Your task to perform on an android device: Open calendar and show me the second week of next month Image 0: 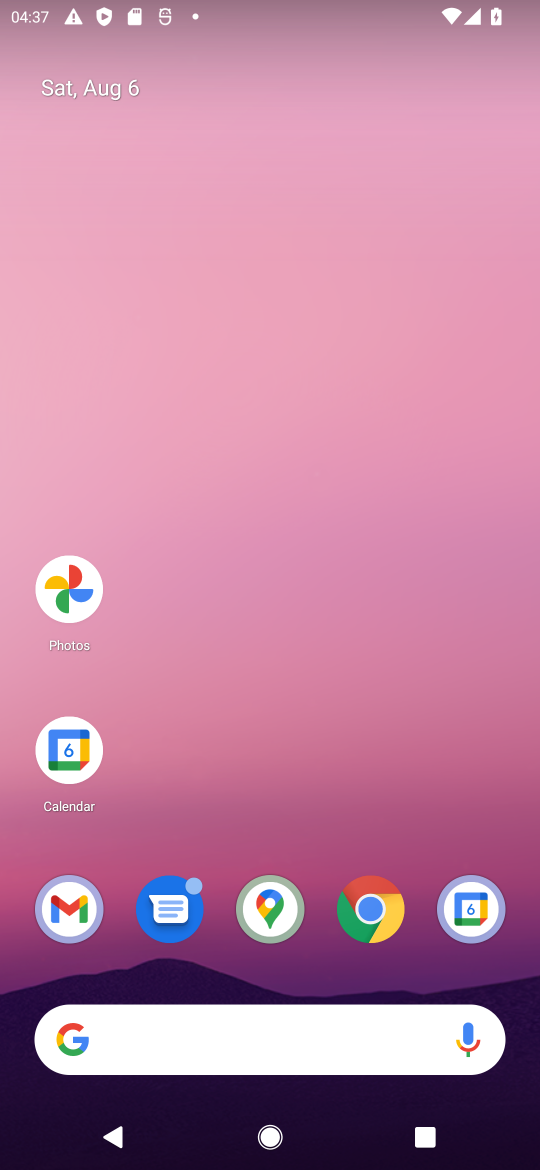
Step 0: click (58, 743)
Your task to perform on an android device: Open calendar and show me the second week of next month Image 1: 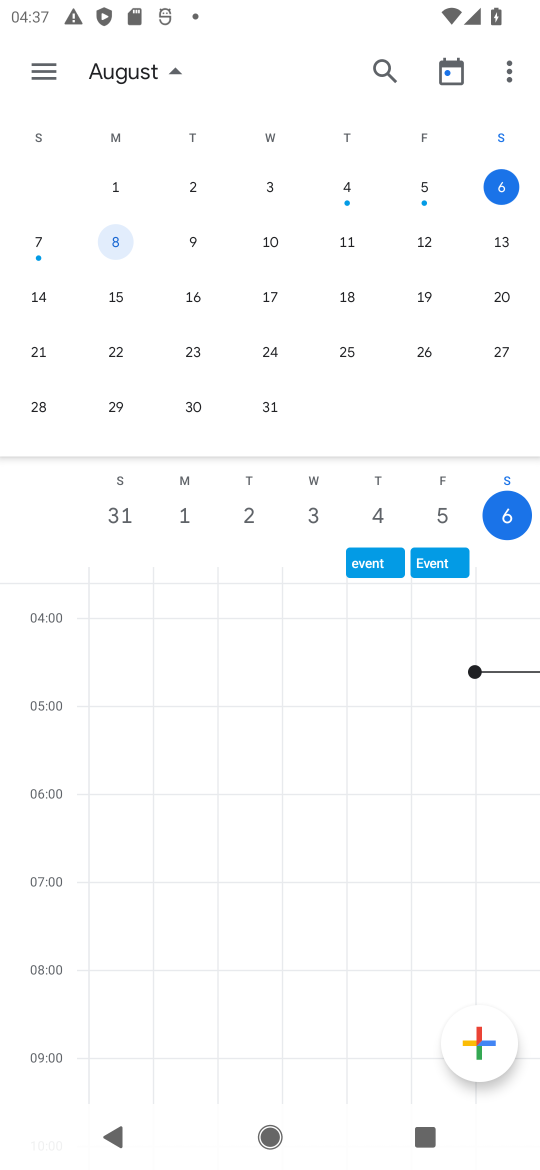
Step 1: drag from (500, 281) to (90, 342)
Your task to perform on an android device: Open calendar and show me the second week of next month Image 2: 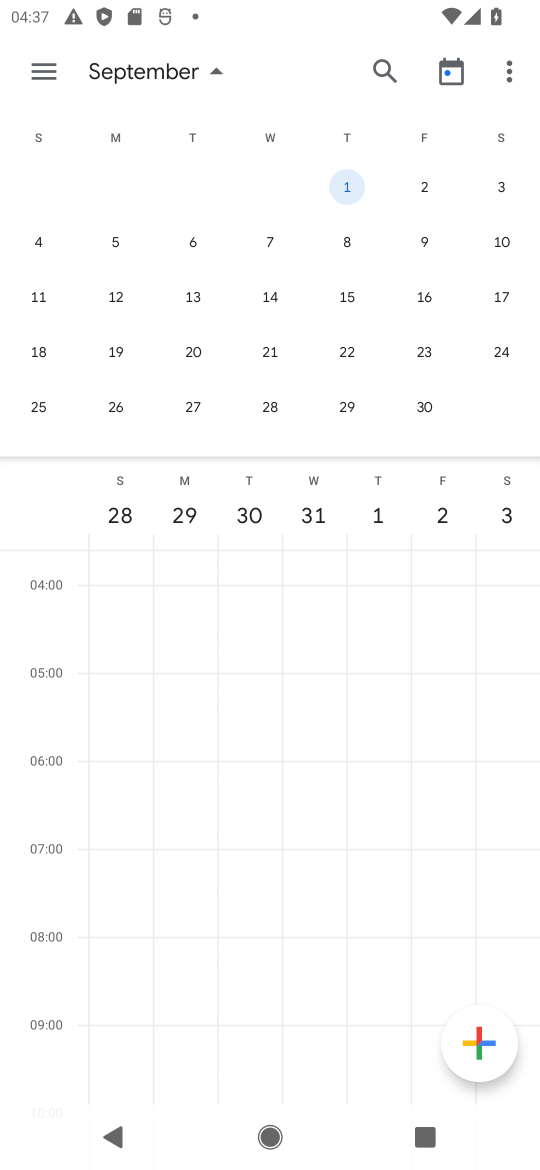
Step 2: click (267, 234)
Your task to perform on an android device: Open calendar and show me the second week of next month Image 3: 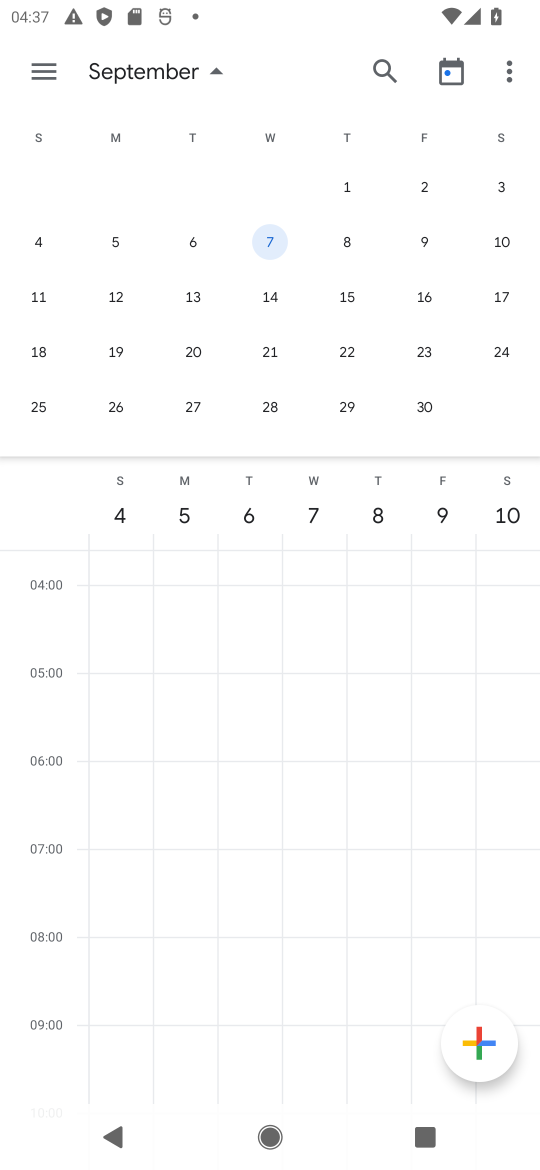
Step 3: task complete